Your task to perform on an android device: Go to wifi settings Image 0: 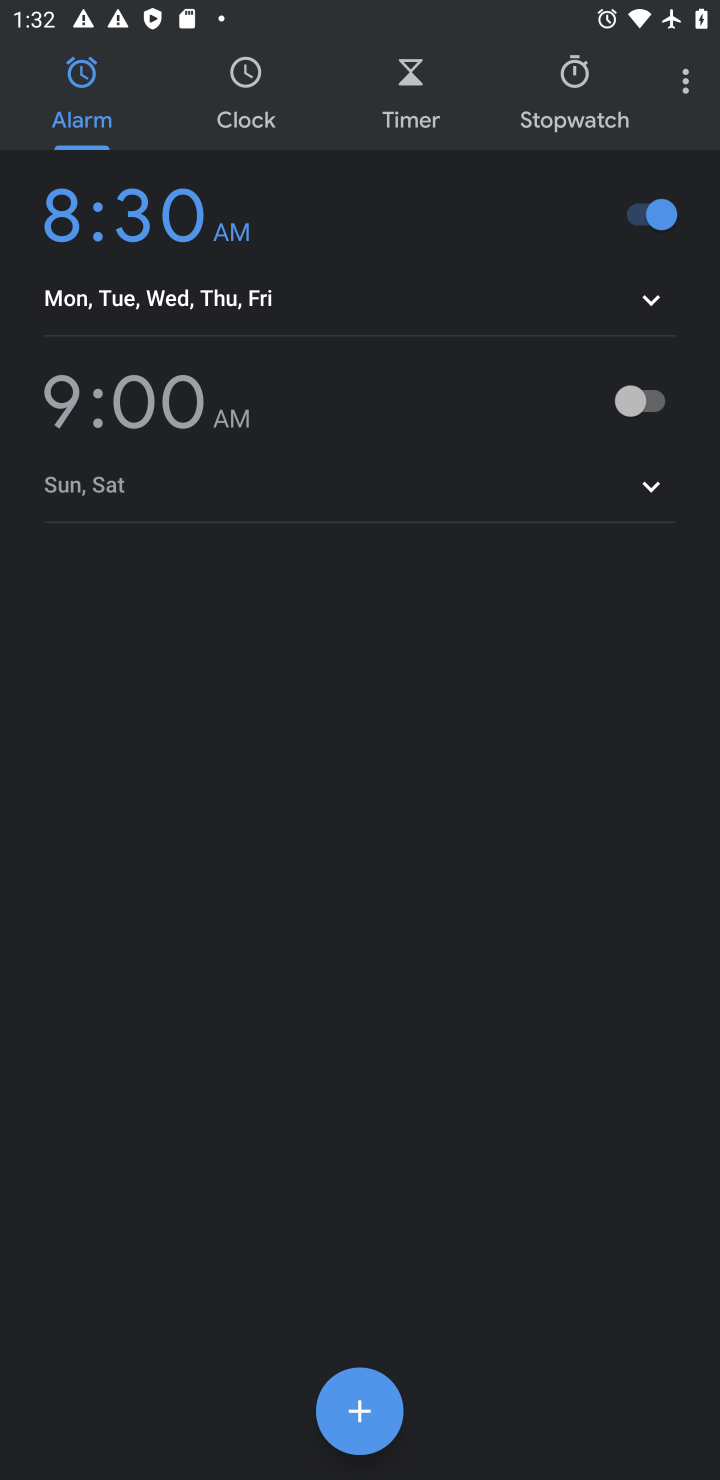
Step 0: press home button
Your task to perform on an android device: Go to wifi settings Image 1: 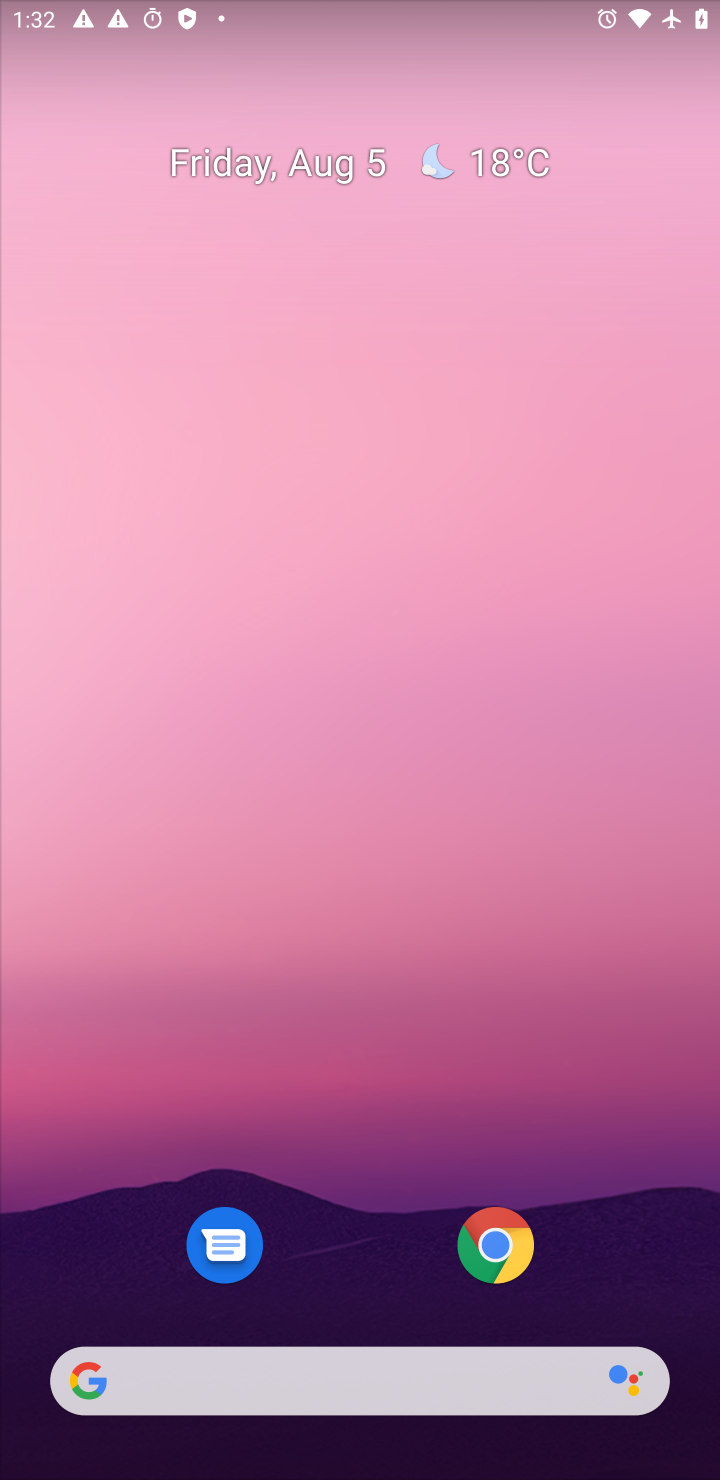
Step 1: drag from (404, 1313) to (474, 300)
Your task to perform on an android device: Go to wifi settings Image 2: 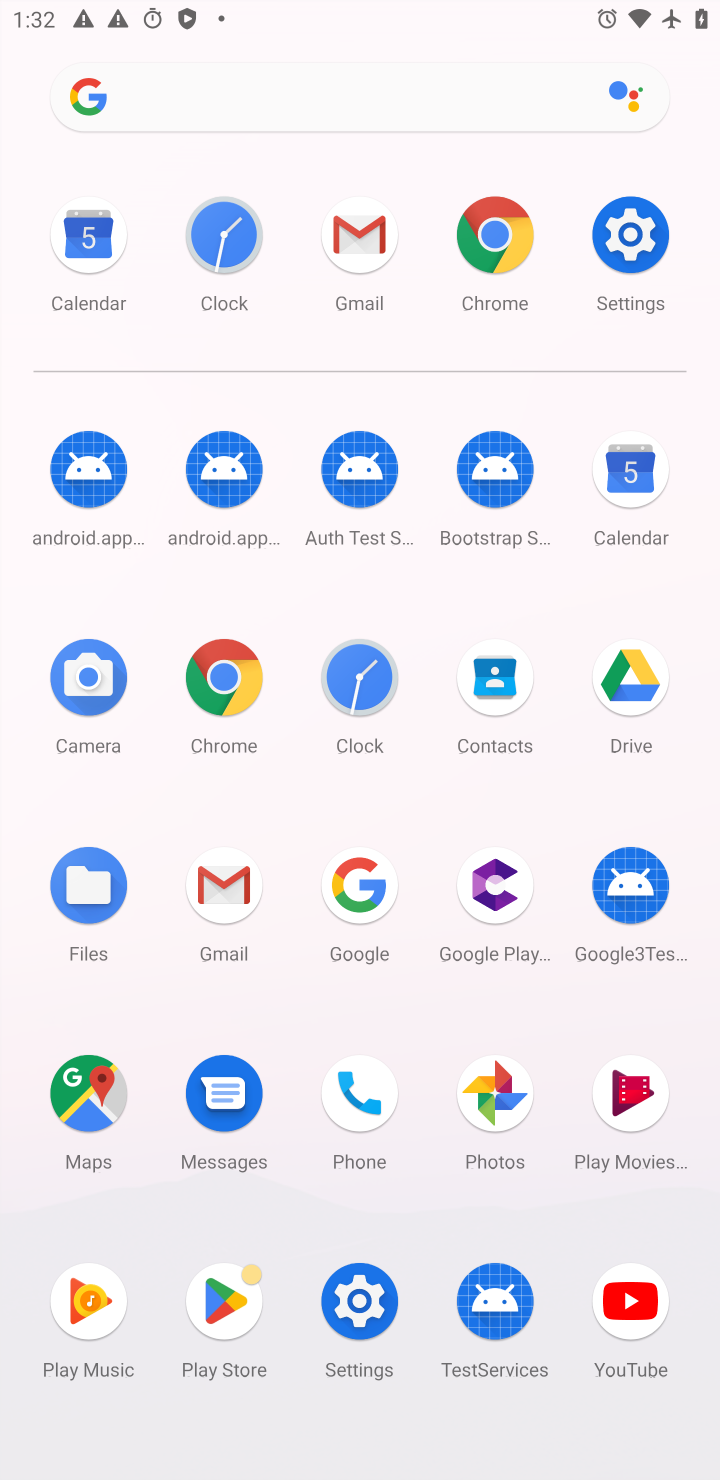
Step 2: click (619, 258)
Your task to perform on an android device: Go to wifi settings Image 3: 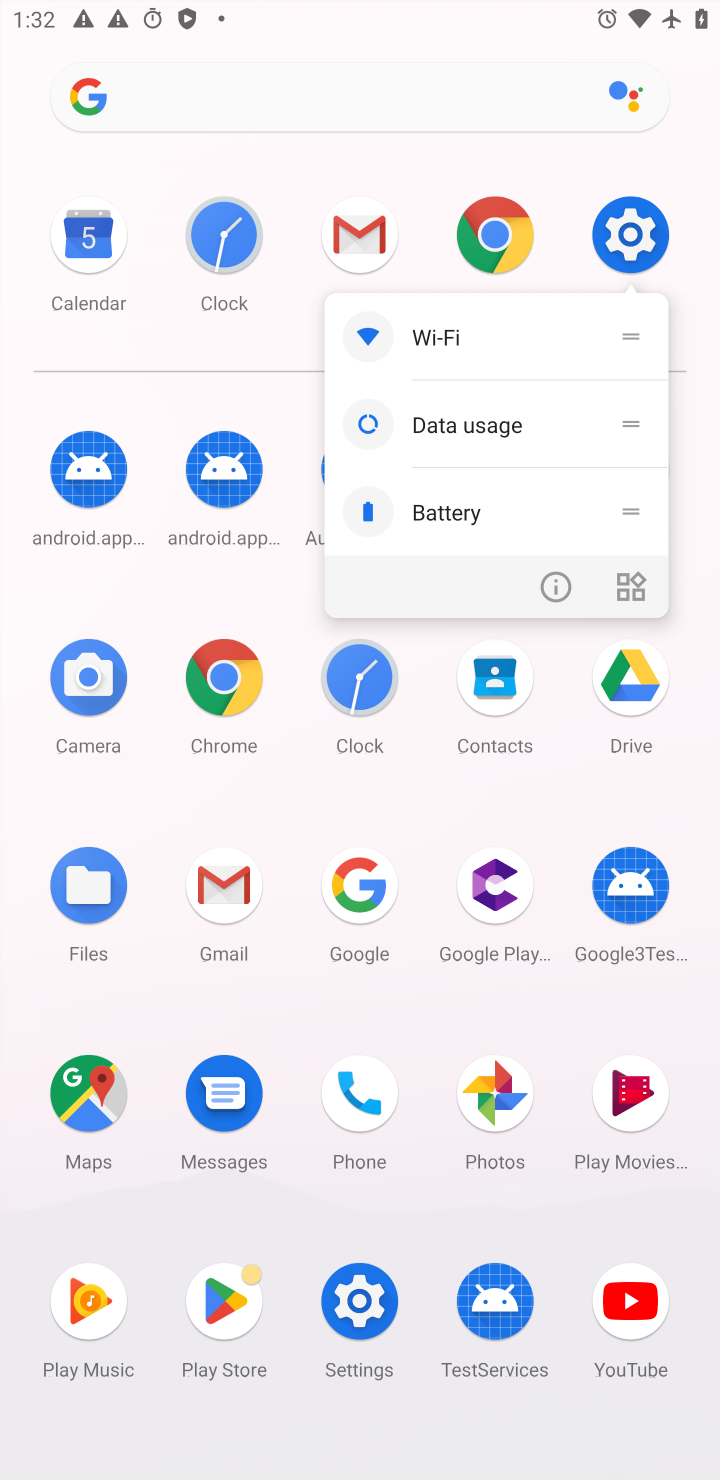
Step 3: click (622, 230)
Your task to perform on an android device: Go to wifi settings Image 4: 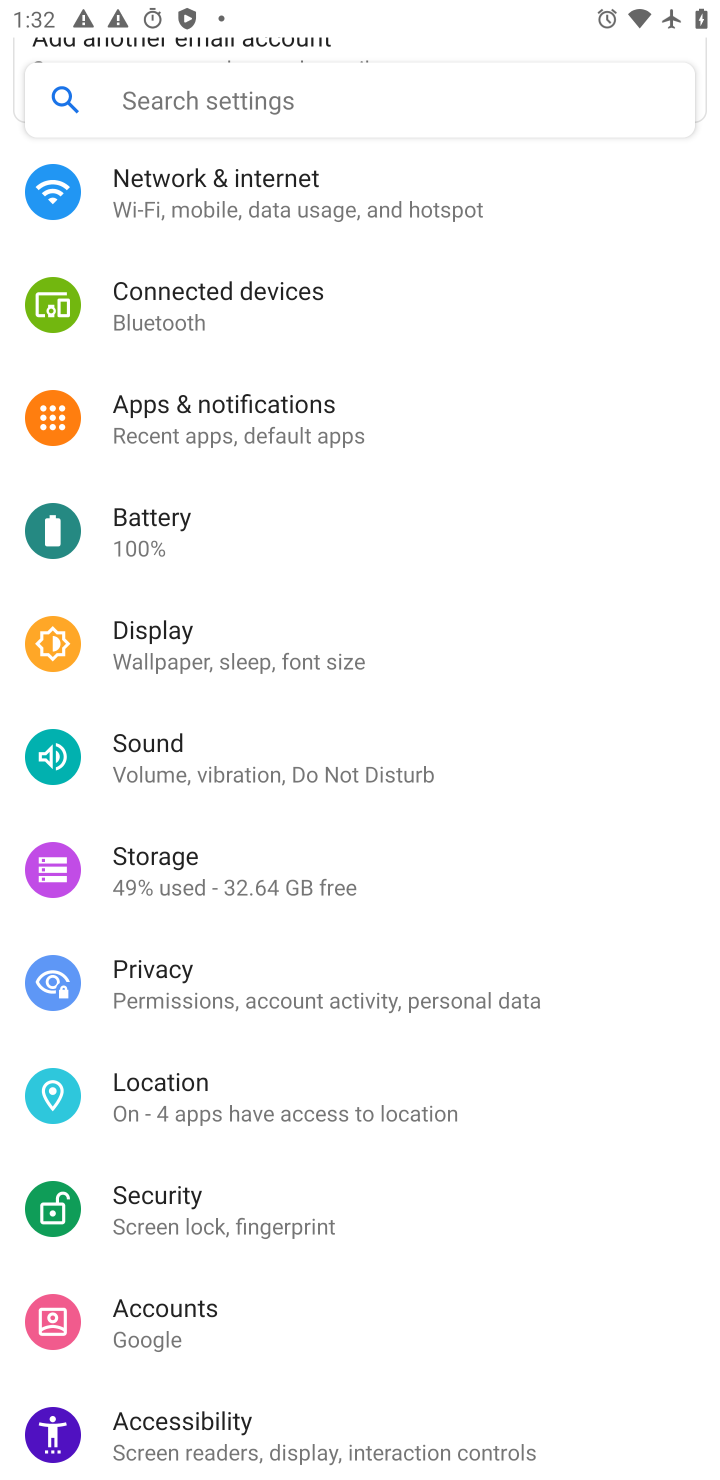
Step 4: drag from (430, 354) to (394, 948)
Your task to perform on an android device: Go to wifi settings Image 5: 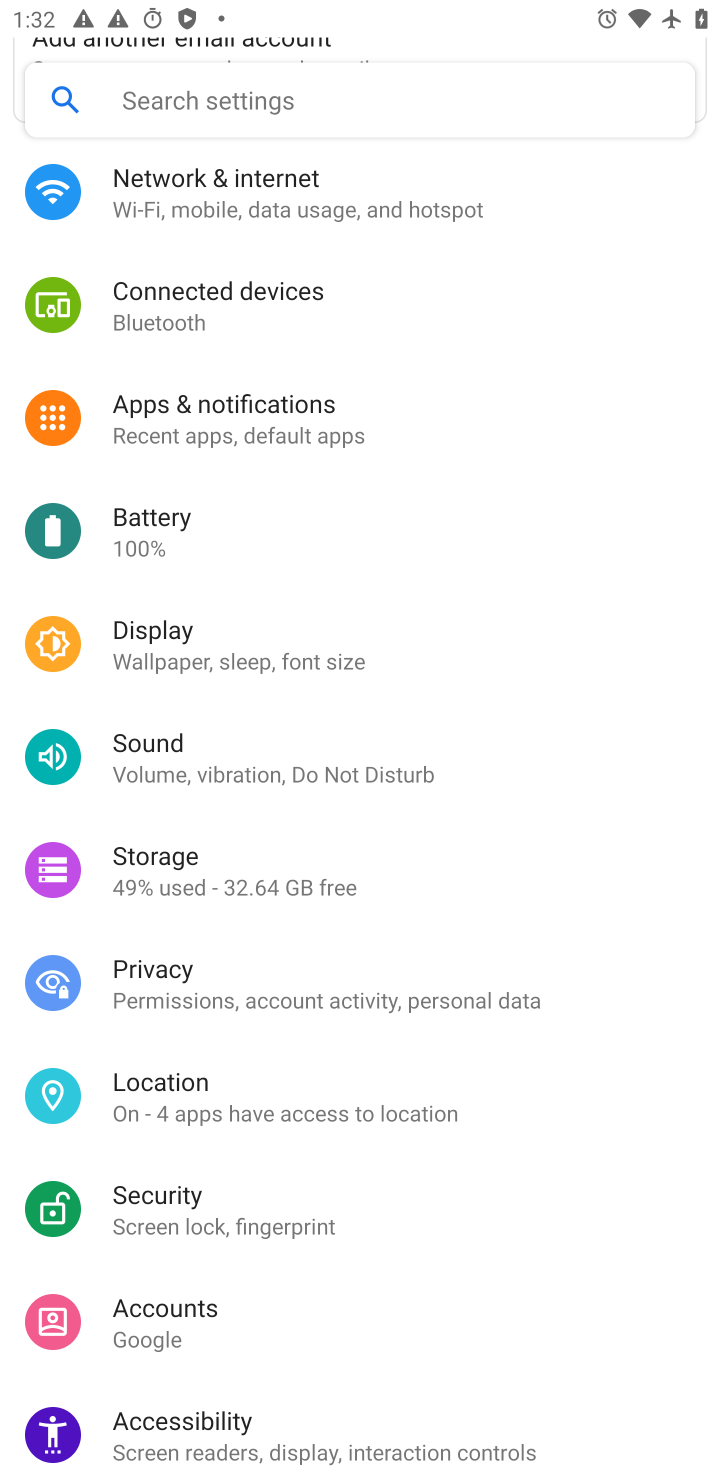
Step 5: click (231, 188)
Your task to perform on an android device: Go to wifi settings Image 6: 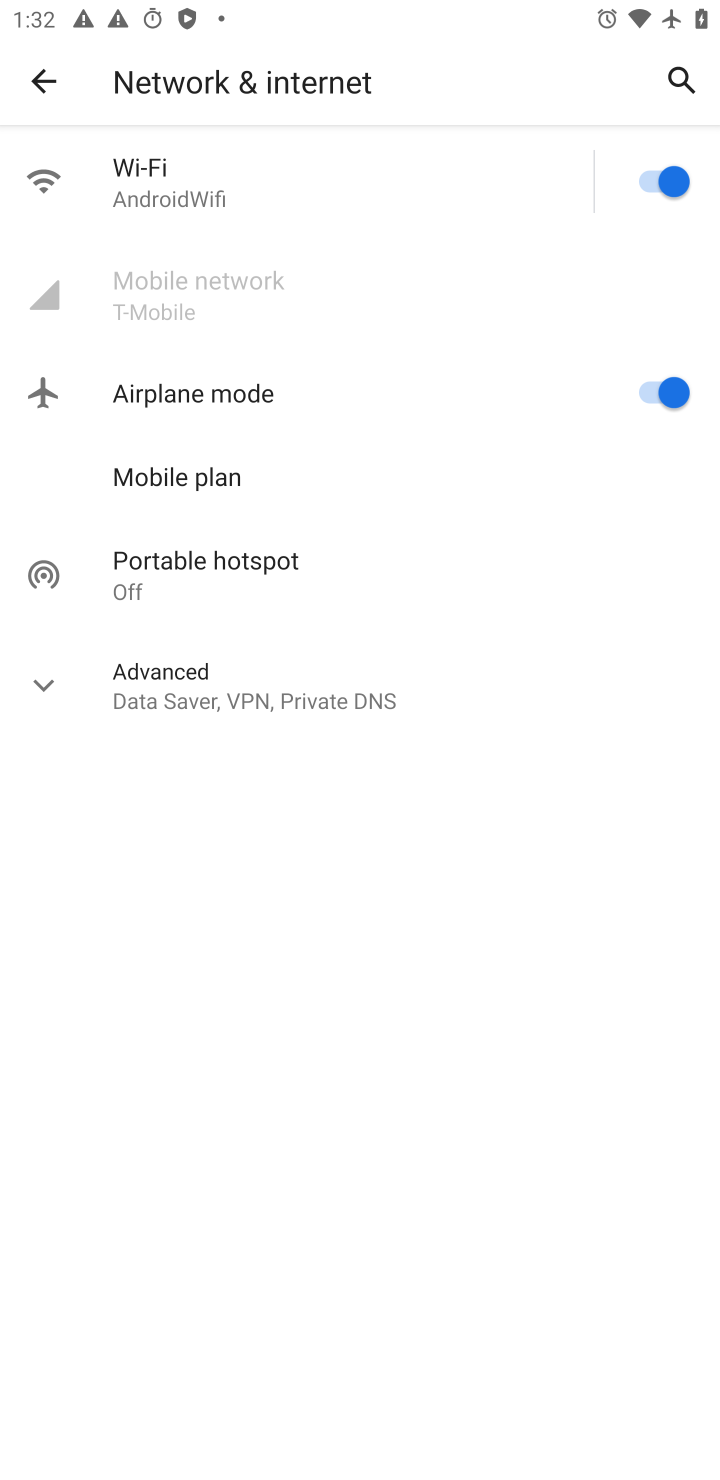
Step 6: click (126, 192)
Your task to perform on an android device: Go to wifi settings Image 7: 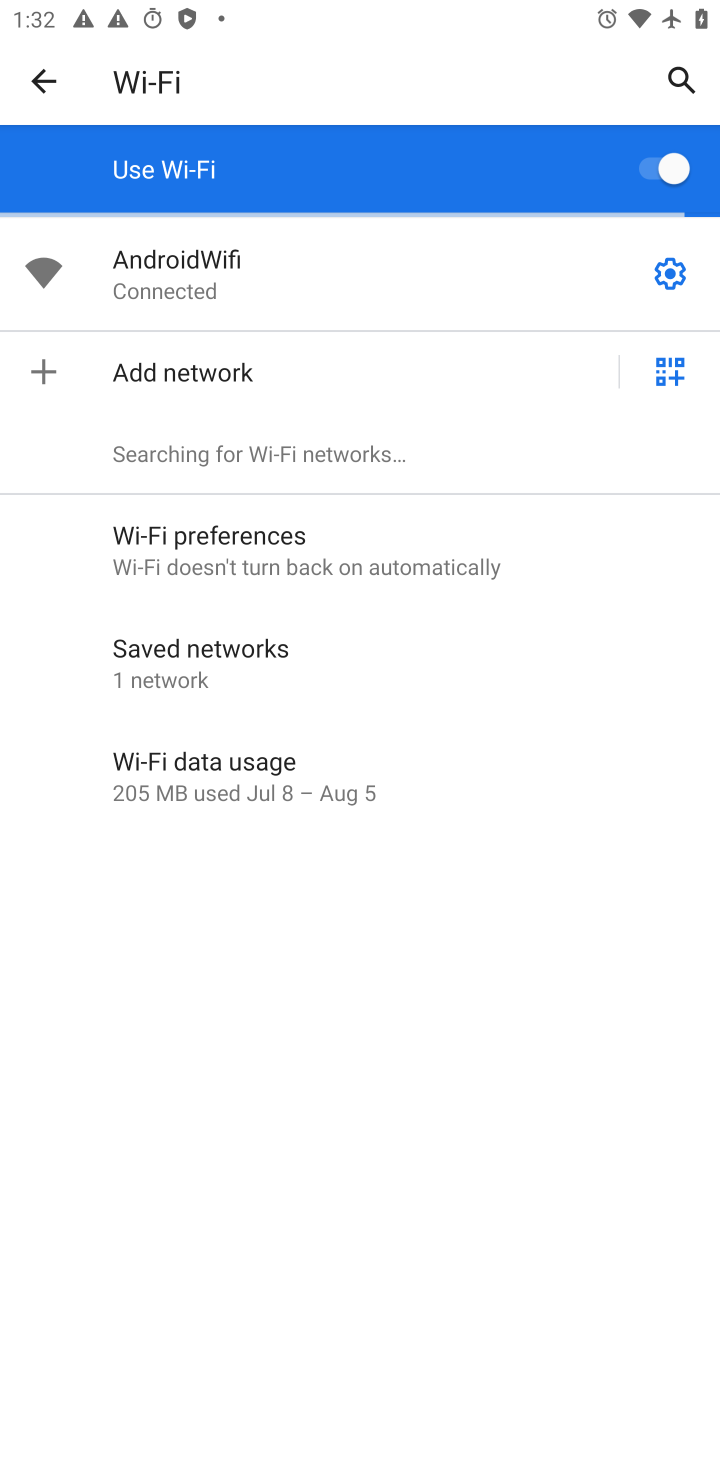
Step 7: click (196, 273)
Your task to perform on an android device: Go to wifi settings Image 8: 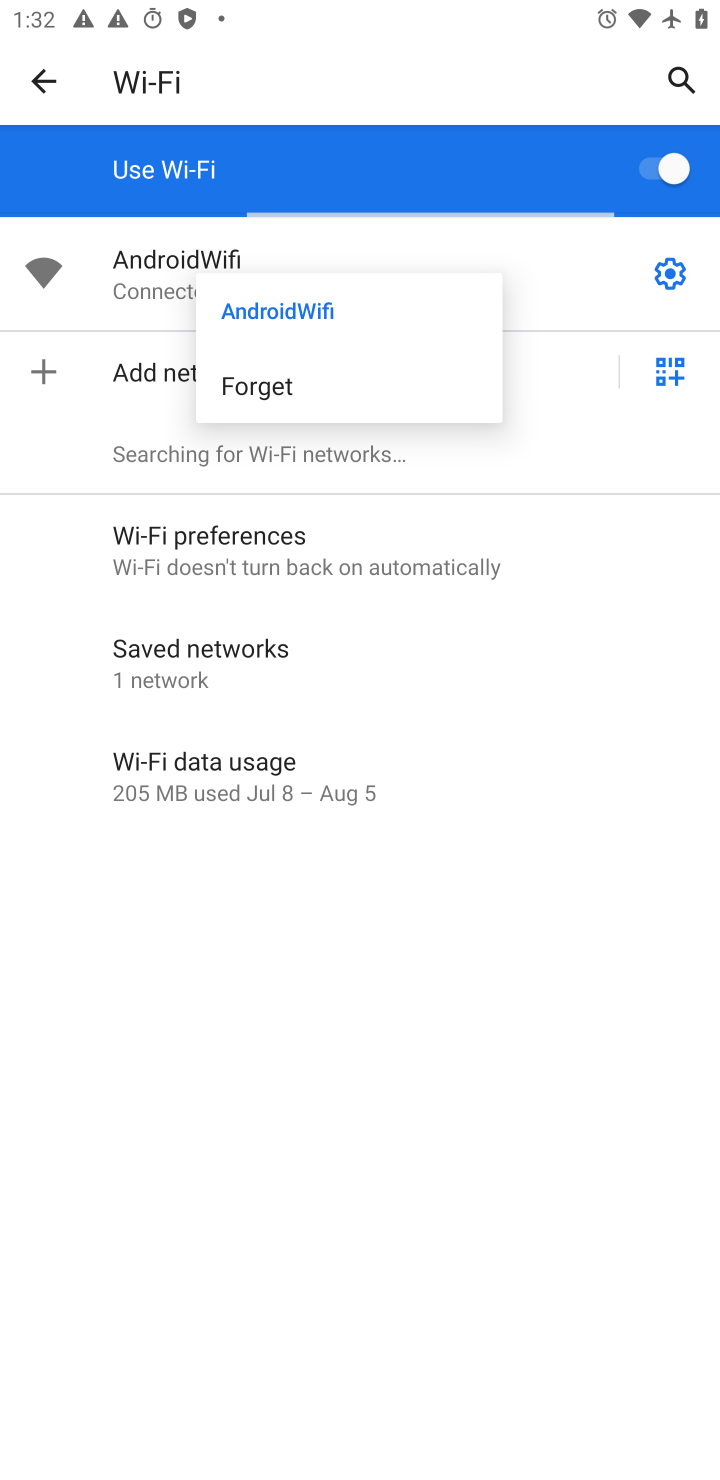
Step 8: click (172, 274)
Your task to perform on an android device: Go to wifi settings Image 9: 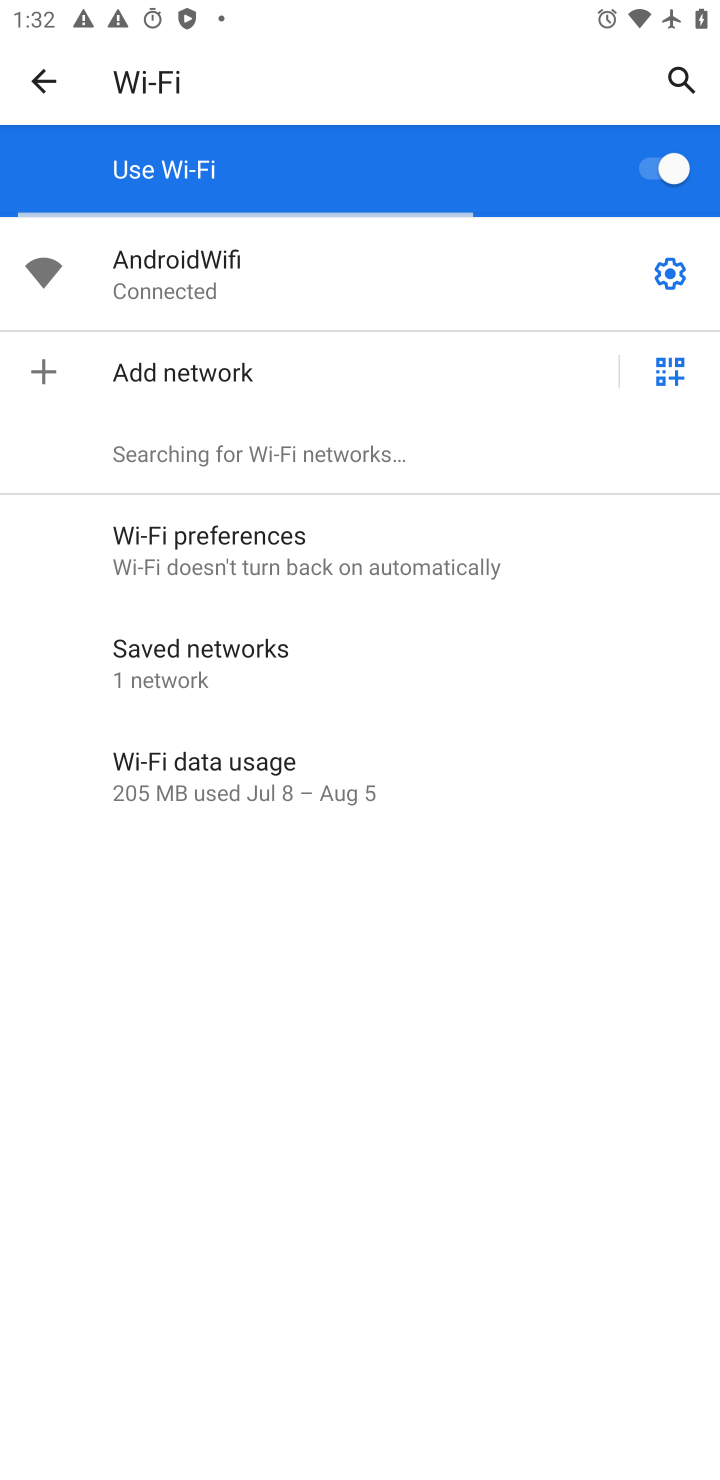
Step 9: task complete